Your task to perform on an android device: turn off location history Image 0: 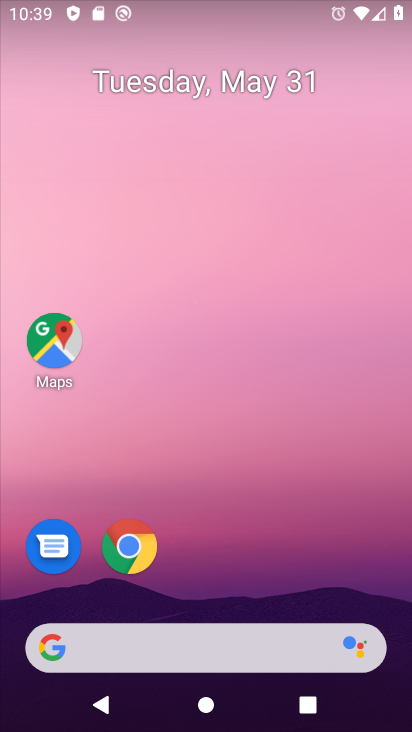
Step 0: drag from (159, 708) to (158, 123)
Your task to perform on an android device: turn off location history Image 1: 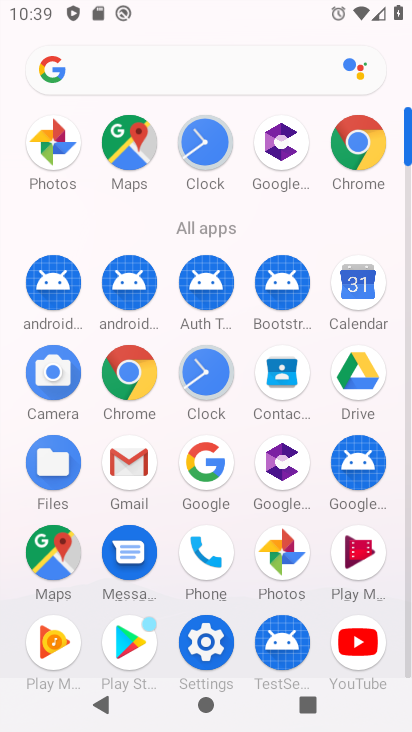
Step 1: click (203, 654)
Your task to perform on an android device: turn off location history Image 2: 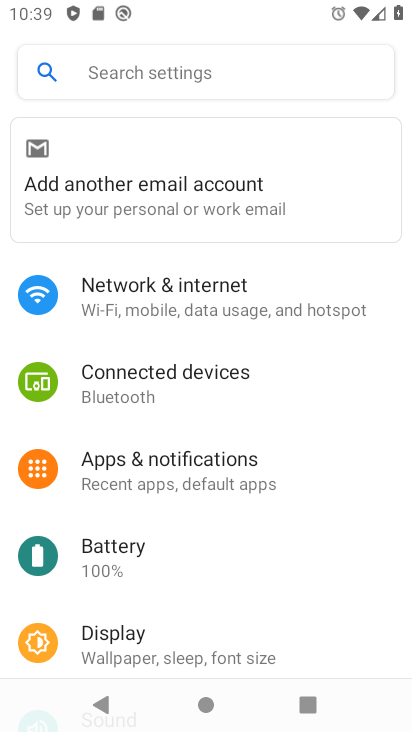
Step 2: drag from (184, 628) to (146, 212)
Your task to perform on an android device: turn off location history Image 3: 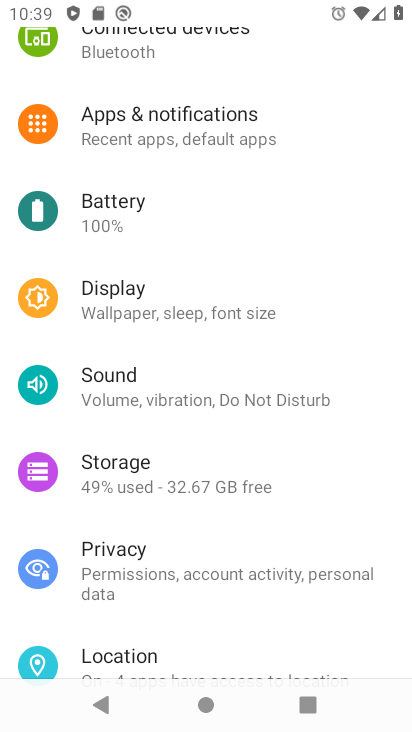
Step 3: click (98, 649)
Your task to perform on an android device: turn off location history Image 4: 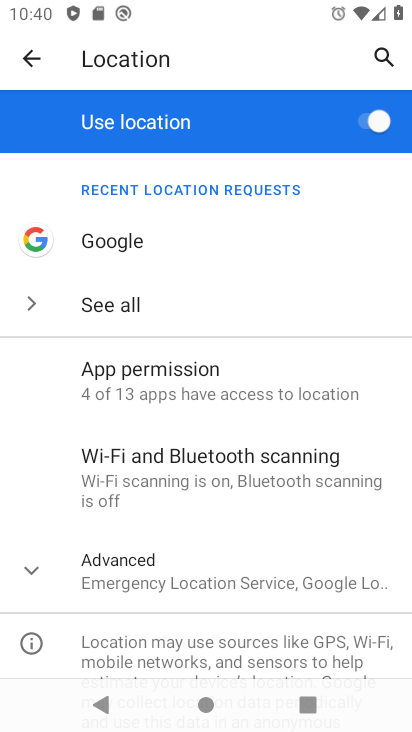
Step 4: drag from (166, 537) to (149, 237)
Your task to perform on an android device: turn off location history Image 5: 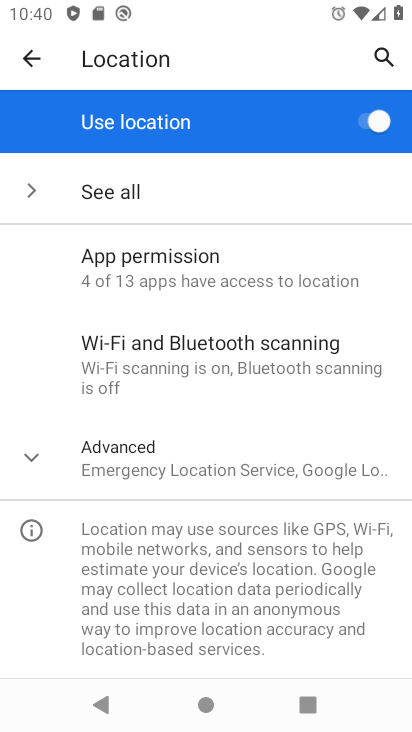
Step 5: click (139, 456)
Your task to perform on an android device: turn off location history Image 6: 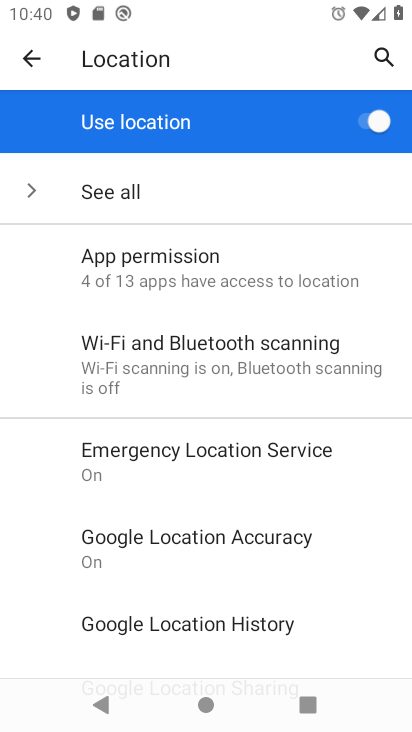
Step 6: click (192, 633)
Your task to perform on an android device: turn off location history Image 7: 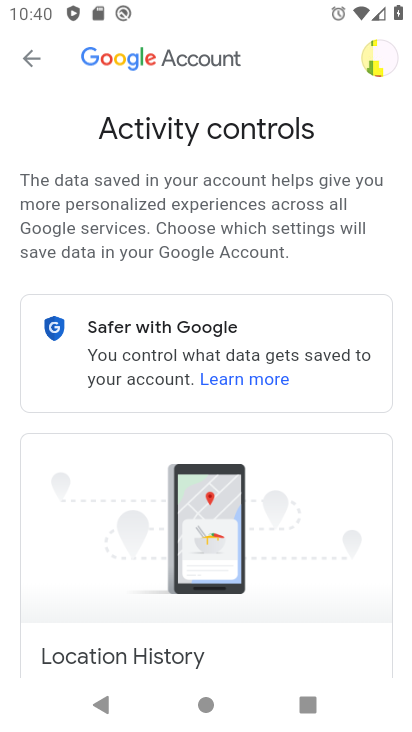
Step 7: drag from (126, 624) to (98, 288)
Your task to perform on an android device: turn off location history Image 8: 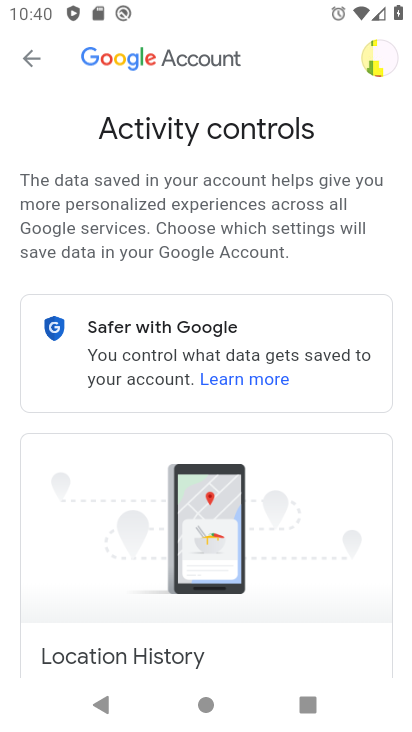
Step 8: drag from (87, 636) to (83, 280)
Your task to perform on an android device: turn off location history Image 9: 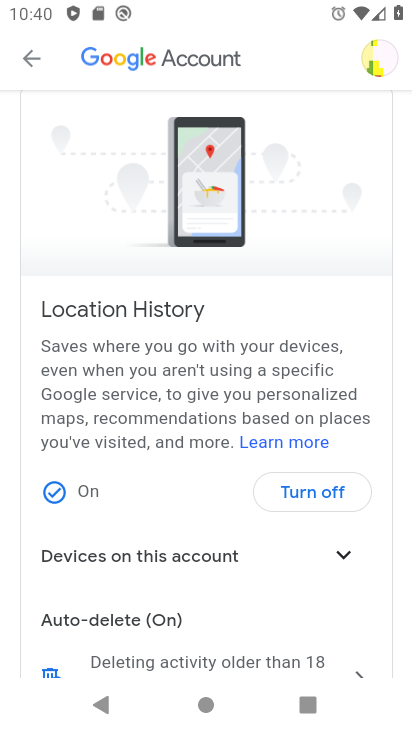
Step 9: click (276, 498)
Your task to perform on an android device: turn off location history Image 10: 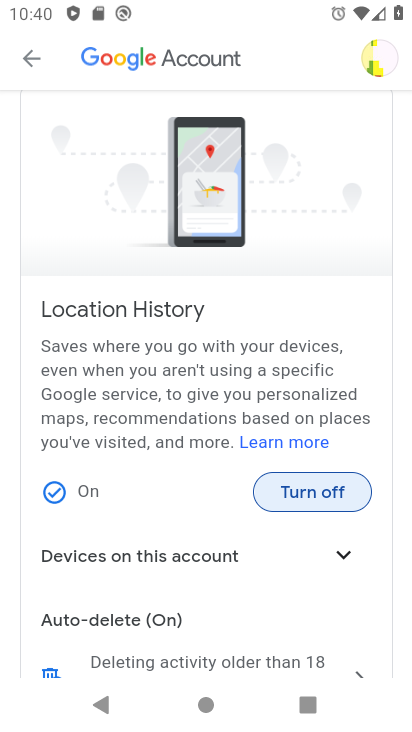
Step 10: click (293, 502)
Your task to perform on an android device: turn off location history Image 11: 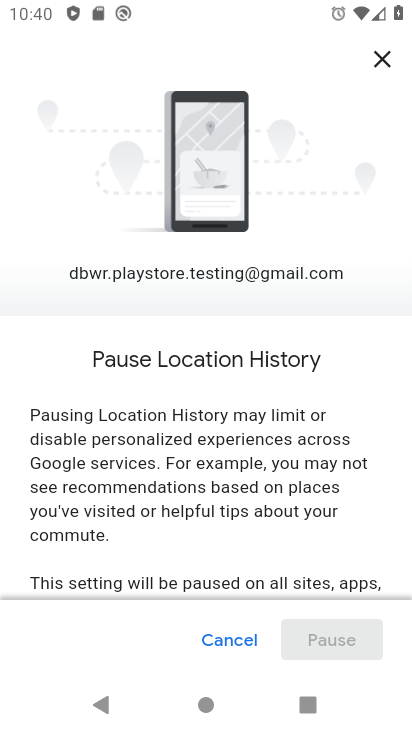
Step 11: drag from (348, 542) to (346, 209)
Your task to perform on an android device: turn off location history Image 12: 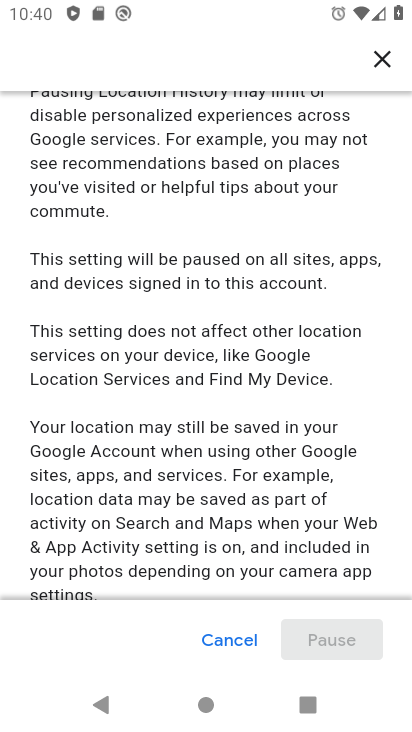
Step 12: drag from (321, 463) to (318, 203)
Your task to perform on an android device: turn off location history Image 13: 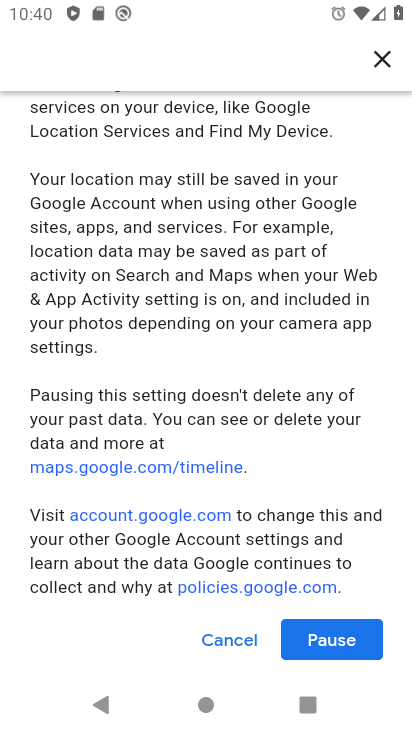
Step 13: click (329, 655)
Your task to perform on an android device: turn off location history Image 14: 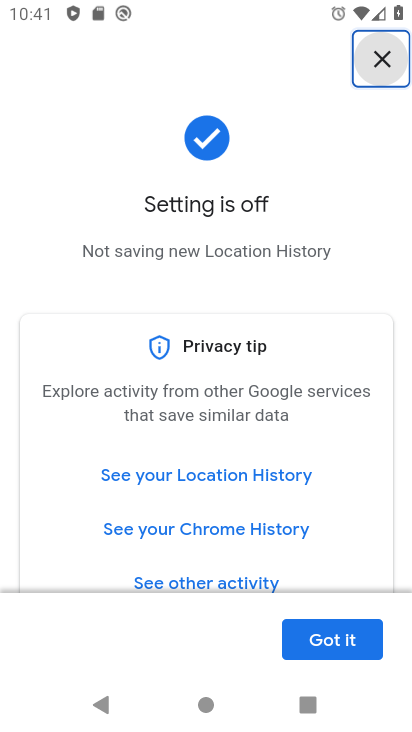
Step 14: click (379, 651)
Your task to perform on an android device: turn off location history Image 15: 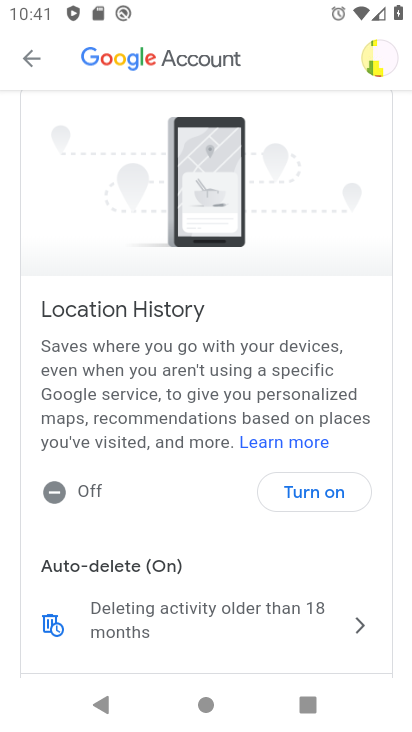
Step 15: task complete